Your task to perform on an android device: Search for sushi restaurants on Maps Image 0: 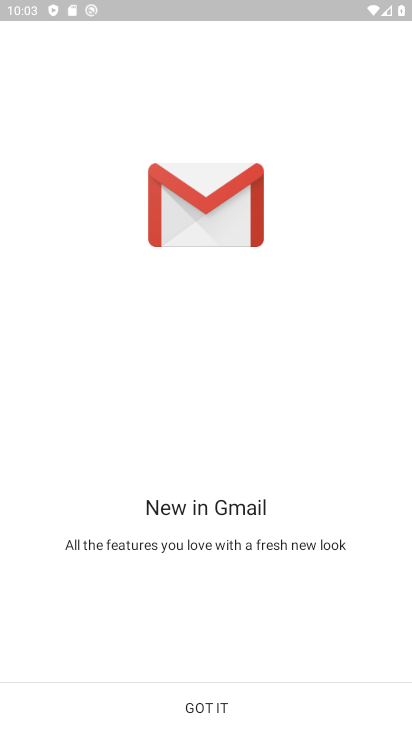
Step 0: press back button
Your task to perform on an android device: Search for sushi restaurants on Maps Image 1: 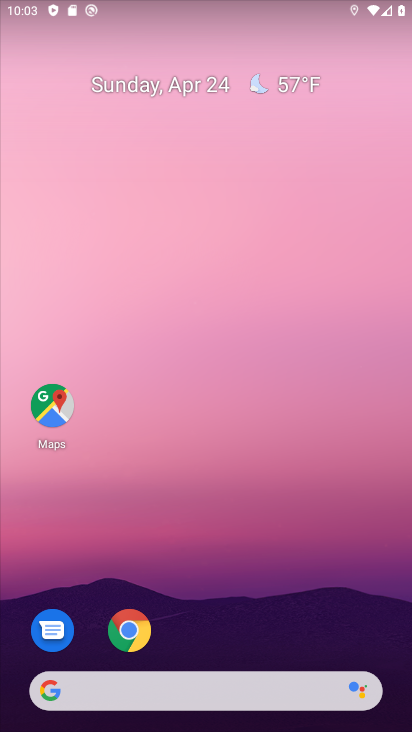
Step 1: click (52, 404)
Your task to perform on an android device: Search for sushi restaurants on Maps Image 2: 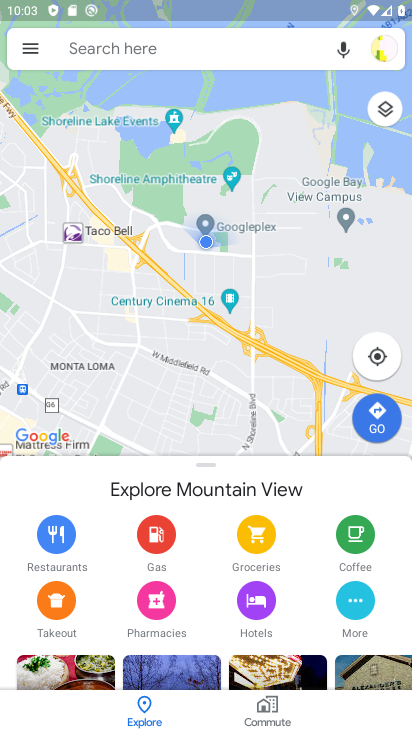
Step 2: click (192, 52)
Your task to perform on an android device: Search for sushi restaurants on Maps Image 3: 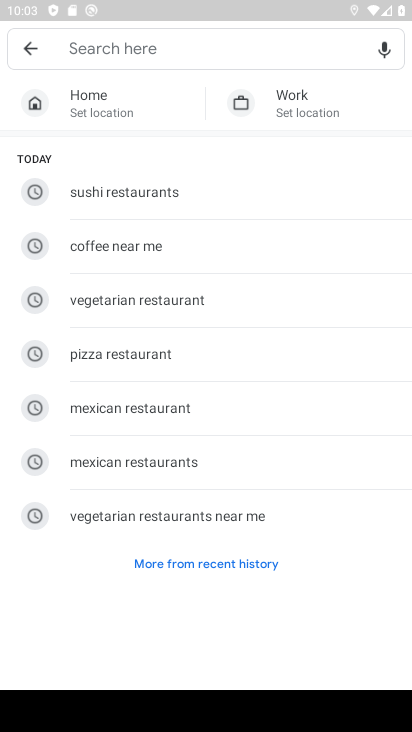
Step 3: type "sushi restaurants"
Your task to perform on an android device: Search for sushi restaurants on Maps Image 4: 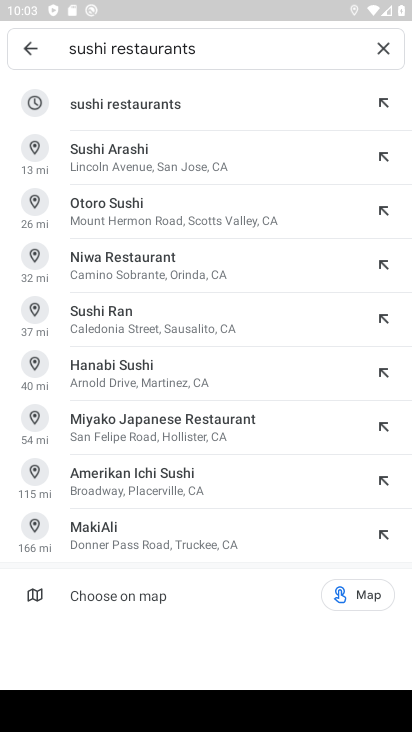
Step 4: click (153, 102)
Your task to perform on an android device: Search for sushi restaurants on Maps Image 5: 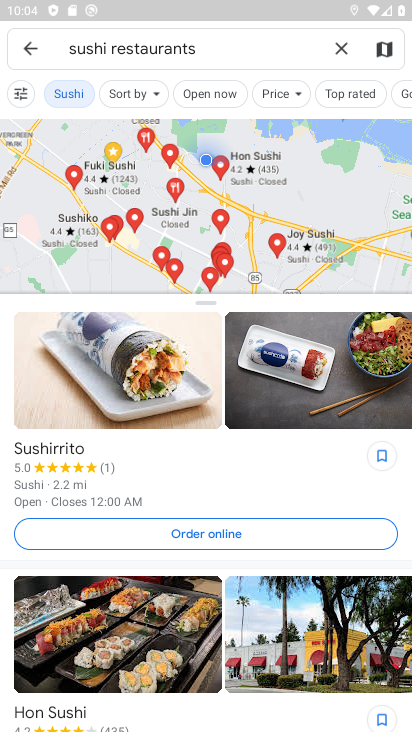
Step 5: task complete